Your task to perform on an android device: read, delete, or share a saved page in the chrome app Image 0: 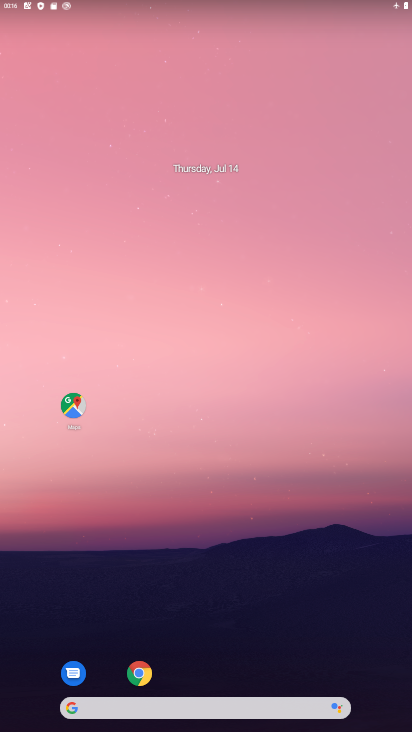
Step 0: click (148, 661)
Your task to perform on an android device: read, delete, or share a saved page in the chrome app Image 1: 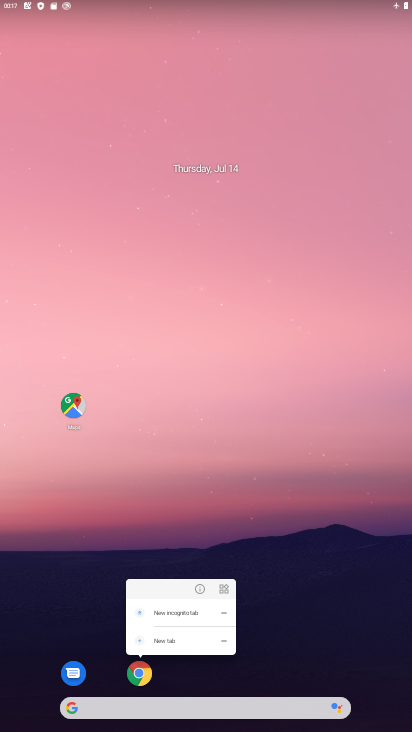
Step 1: click (141, 668)
Your task to perform on an android device: read, delete, or share a saved page in the chrome app Image 2: 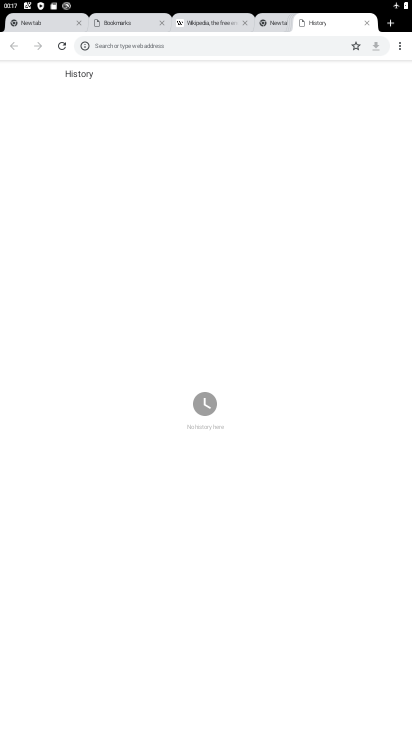
Step 2: click (400, 46)
Your task to perform on an android device: read, delete, or share a saved page in the chrome app Image 3: 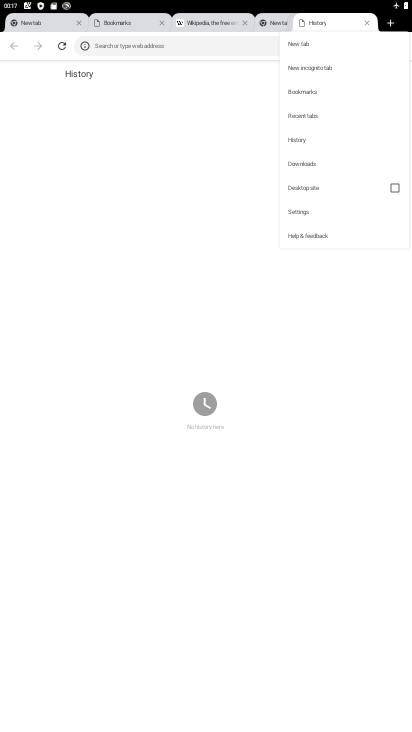
Step 3: click (296, 162)
Your task to perform on an android device: read, delete, or share a saved page in the chrome app Image 4: 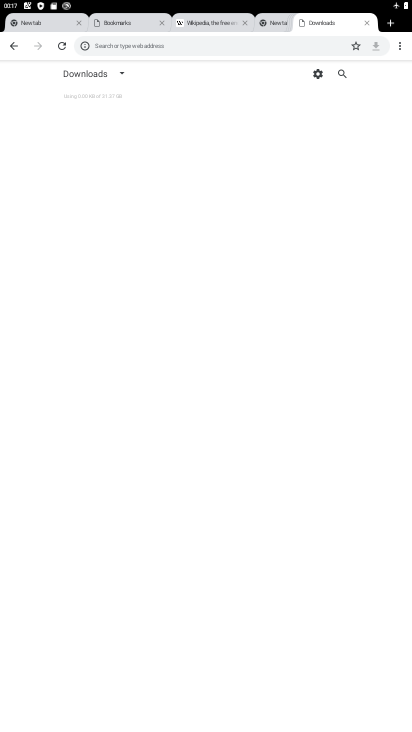
Step 4: click (121, 74)
Your task to perform on an android device: read, delete, or share a saved page in the chrome app Image 5: 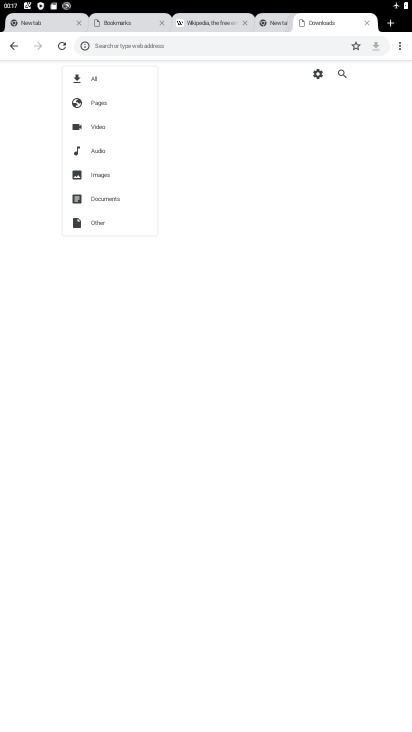
Step 5: click (89, 98)
Your task to perform on an android device: read, delete, or share a saved page in the chrome app Image 6: 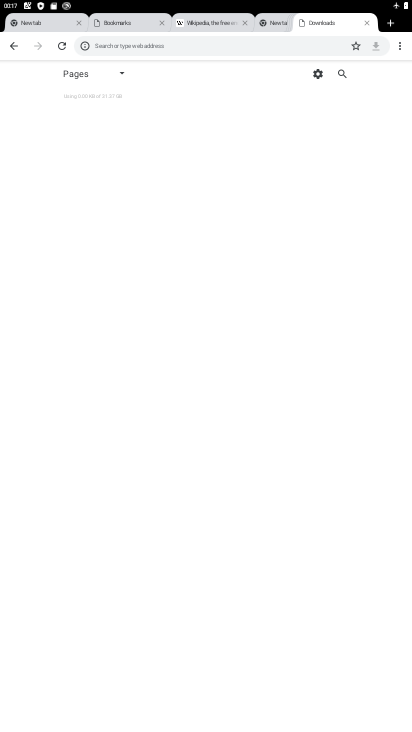
Step 6: task complete